Your task to perform on an android device: Go to Maps Image 0: 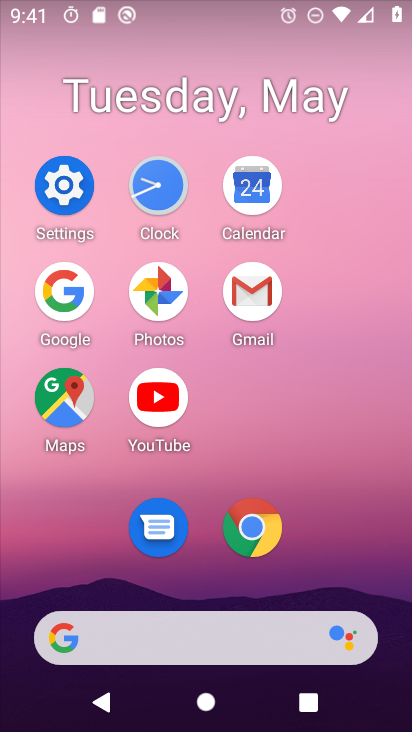
Step 0: click (74, 396)
Your task to perform on an android device: Go to Maps Image 1: 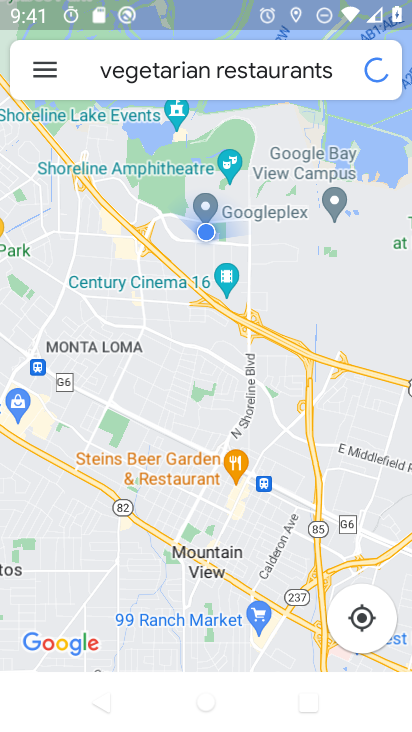
Step 1: task complete